Your task to perform on an android device: turn off sleep mode Image 0: 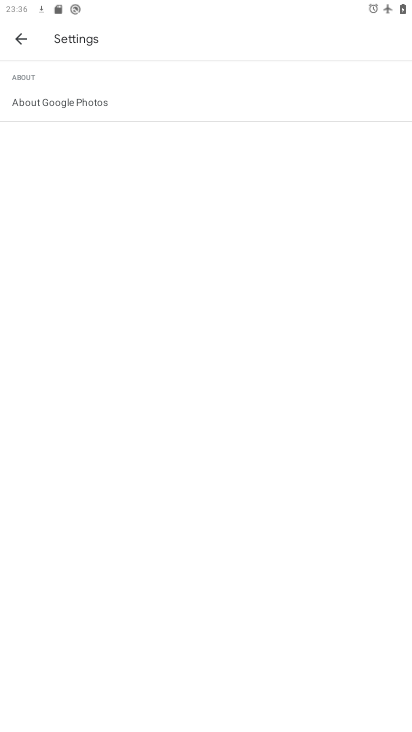
Step 0: press home button
Your task to perform on an android device: turn off sleep mode Image 1: 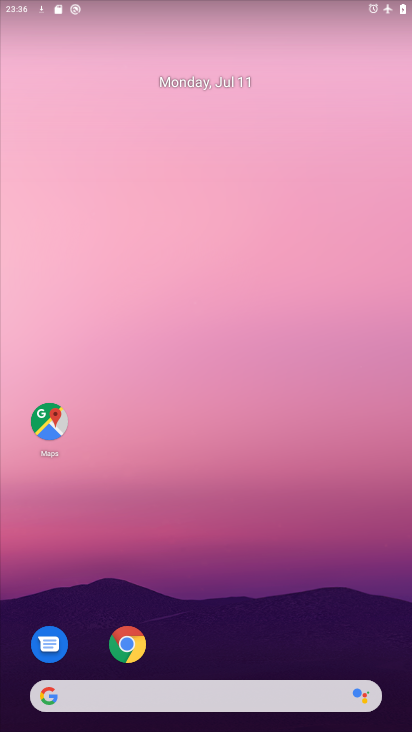
Step 1: drag from (233, 644) to (235, 197)
Your task to perform on an android device: turn off sleep mode Image 2: 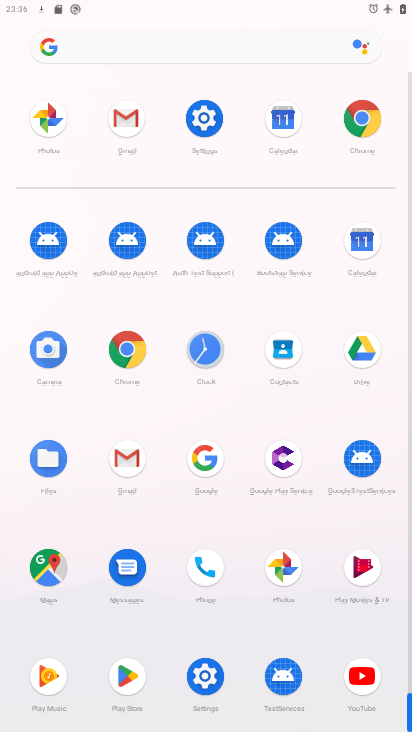
Step 2: click (198, 104)
Your task to perform on an android device: turn off sleep mode Image 3: 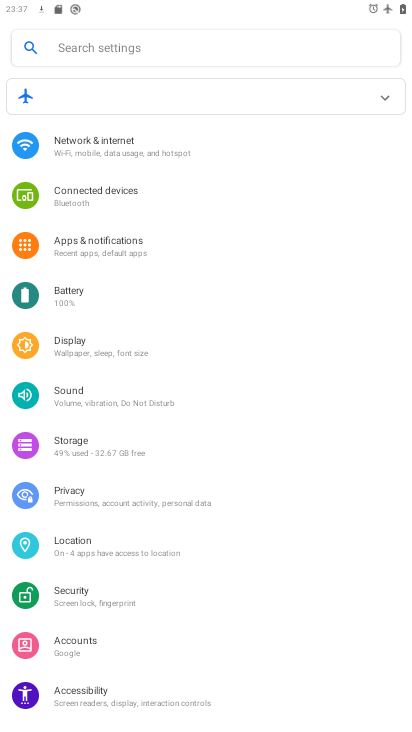
Step 3: task complete